Your task to perform on an android device: make emails show in primary in the gmail app Image 0: 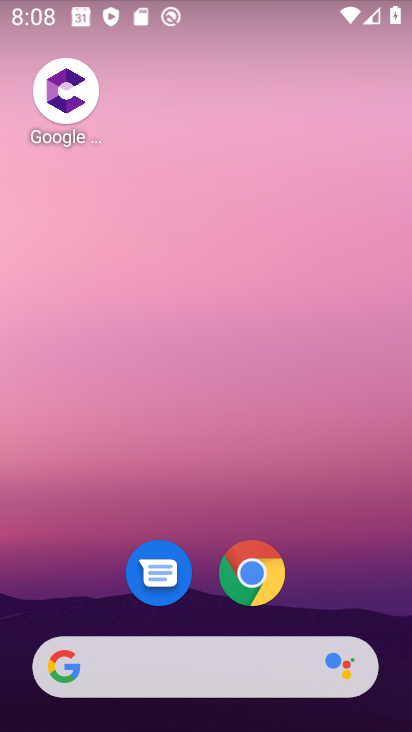
Step 0: drag from (312, 665) to (312, 165)
Your task to perform on an android device: make emails show in primary in the gmail app Image 1: 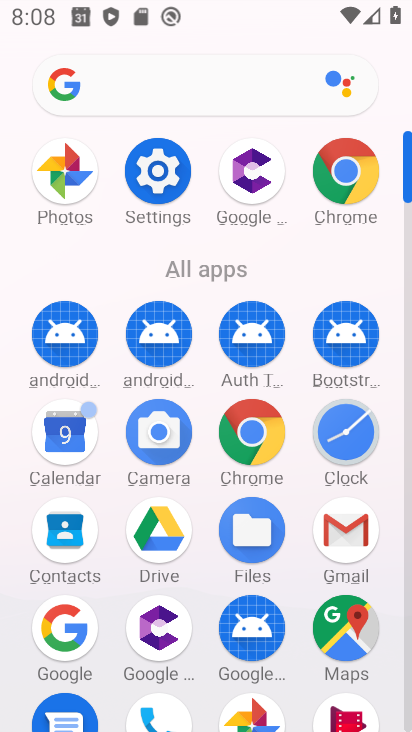
Step 1: click (336, 554)
Your task to perform on an android device: make emails show in primary in the gmail app Image 2: 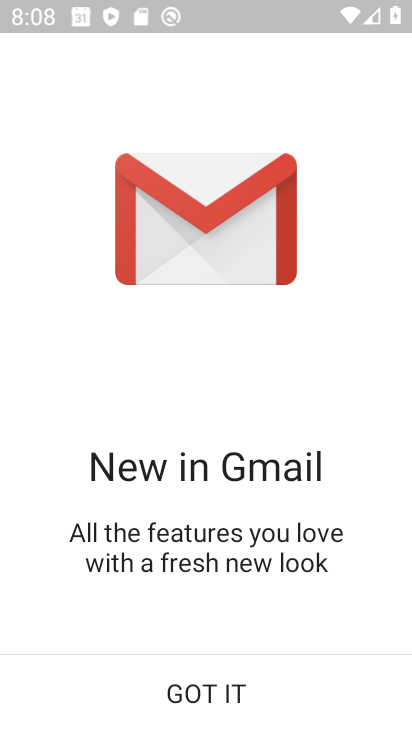
Step 2: click (203, 697)
Your task to perform on an android device: make emails show in primary in the gmail app Image 3: 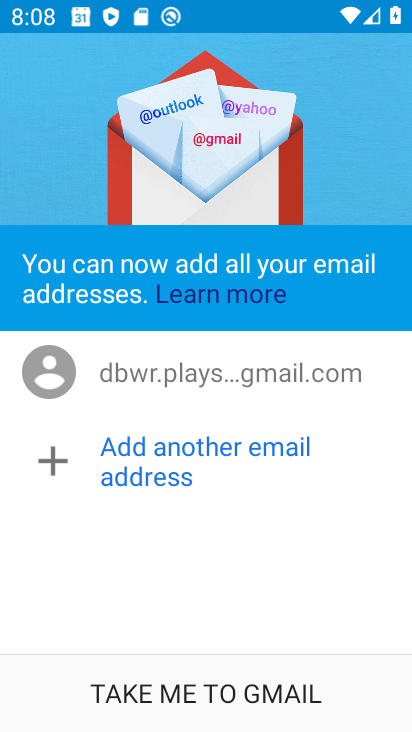
Step 3: click (199, 683)
Your task to perform on an android device: make emails show in primary in the gmail app Image 4: 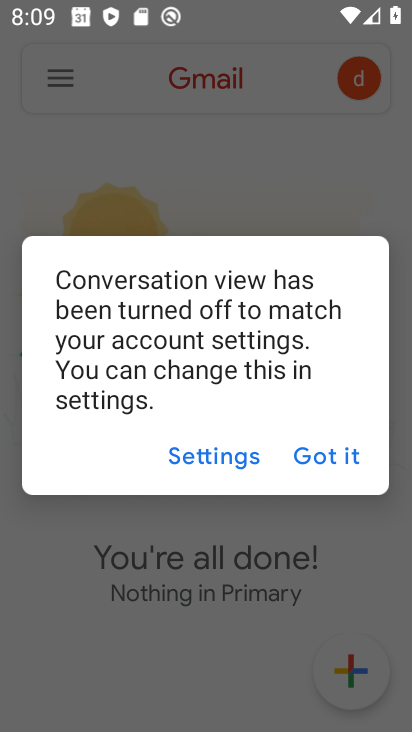
Step 4: click (315, 458)
Your task to perform on an android device: make emails show in primary in the gmail app Image 5: 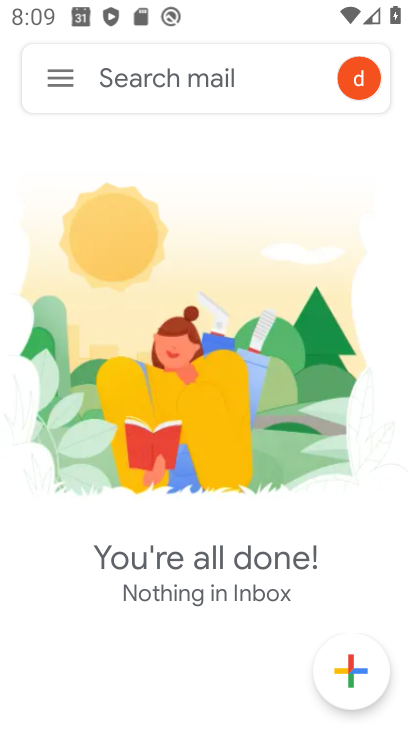
Step 5: click (63, 81)
Your task to perform on an android device: make emails show in primary in the gmail app Image 6: 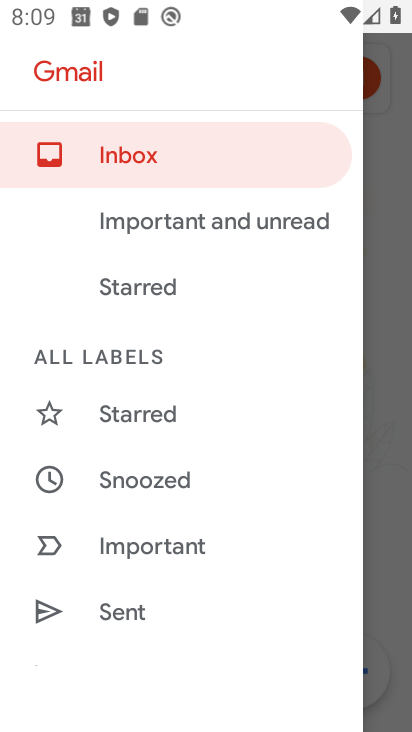
Step 6: drag from (202, 530) to (202, 289)
Your task to perform on an android device: make emails show in primary in the gmail app Image 7: 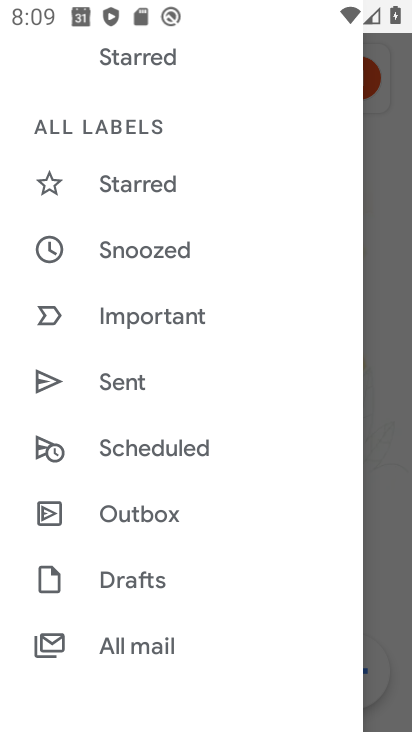
Step 7: drag from (72, 589) to (80, 459)
Your task to perform on an android device: make emails show in primary in the gmail app Image 8: 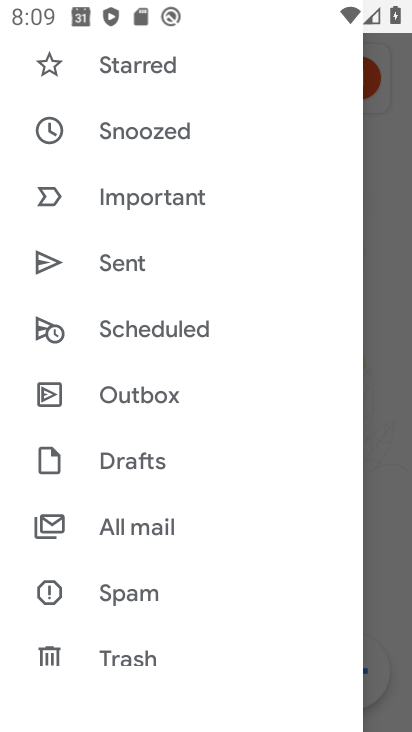
Step 8: click (133, 530)
Your task to perform on an android device: make emails show in primary in the gmail app Image 9: 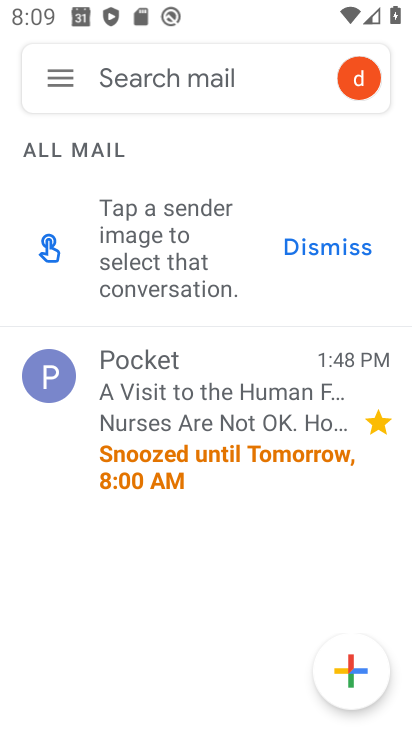
Step 9: click (150, 427)
Your task to perform on an android device: make emails show in primary in the gmail app Image 10: 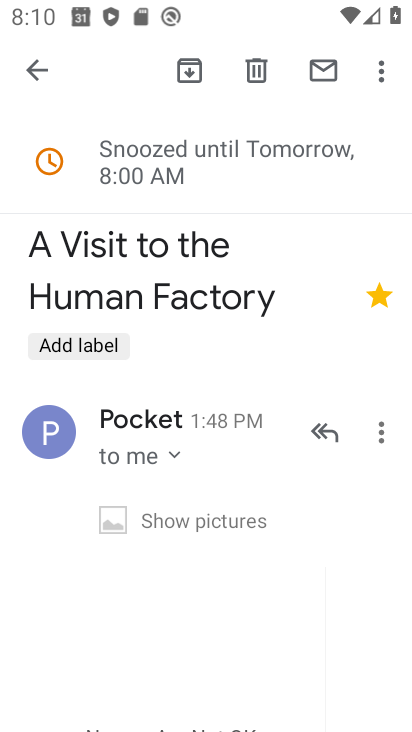
Step 10: click (383, 74)
Your task to perform on an android device: make emails show in primary in the gmail app Image 11: 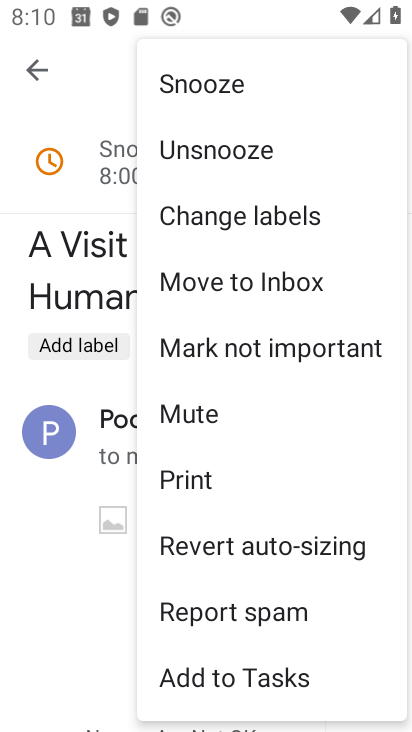
Step 11: task complete